Your task to perform on an android device: move a message to another label in the gmail app Image 0: 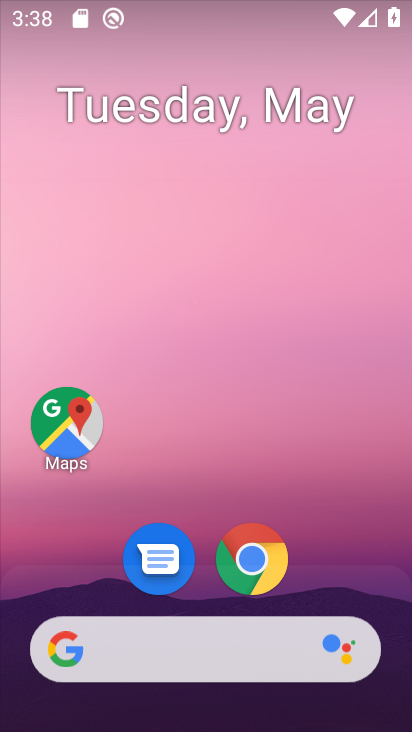
Step 0: drag from (392, 596) to (328, 32)
Your task to perform on an android device: move a message to another label in the gmail app Image 1: 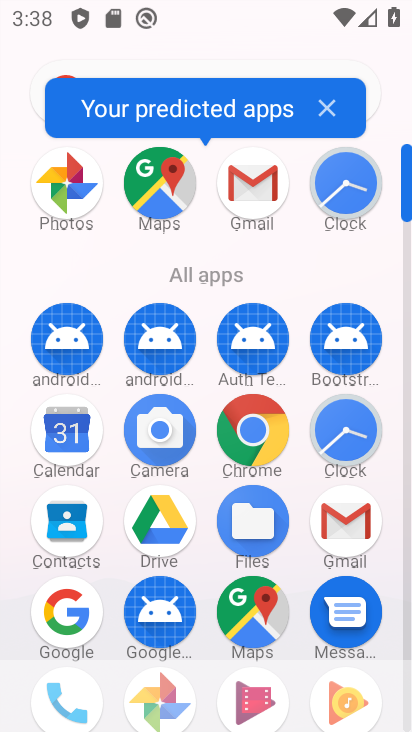
Step 1: click (262, 197)
Your task to perform on an android device: move a message to another label in the gmail app Image 2: 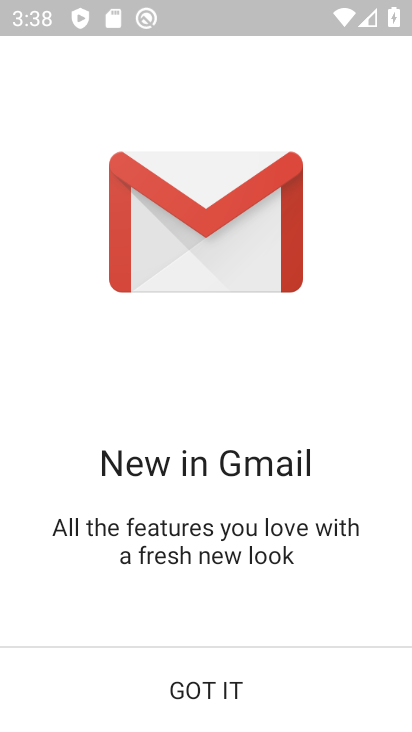
Step 2: click (225, 703)
Your task to perform on an android device: move a message to another label in the gmail app Image 3: 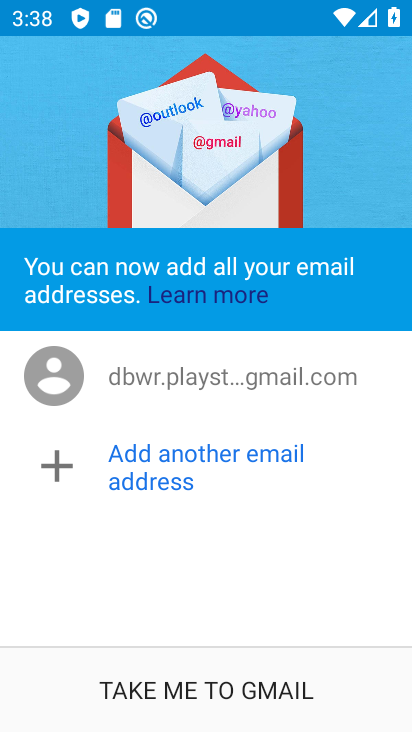
Step 3: click (225, 703)
Your task to perform on an android device: move a message to another label in the gmail app Image 4: 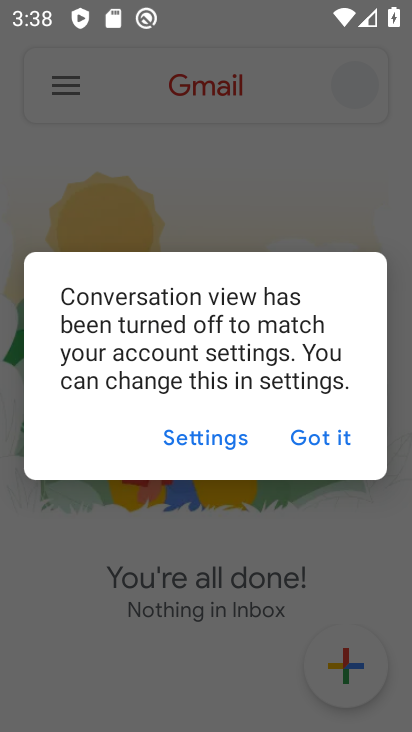
Step 4: click (320, 437)
Your task to perform on an android device: move a message to another label in the gmail app Image 5: 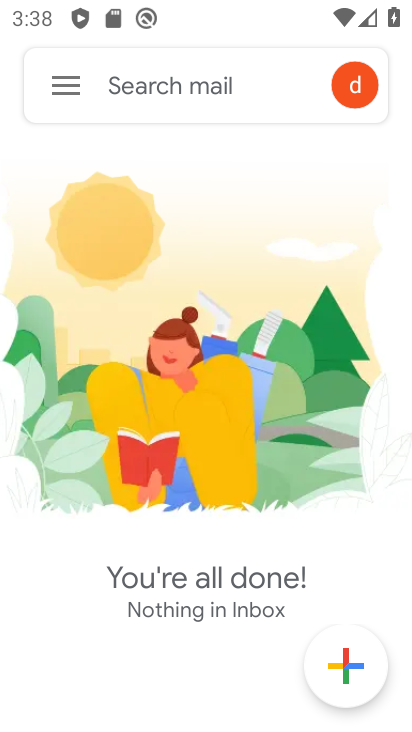
Step 5: task complete